Your task to perform on an android device: Go to wifi settings Image 0: 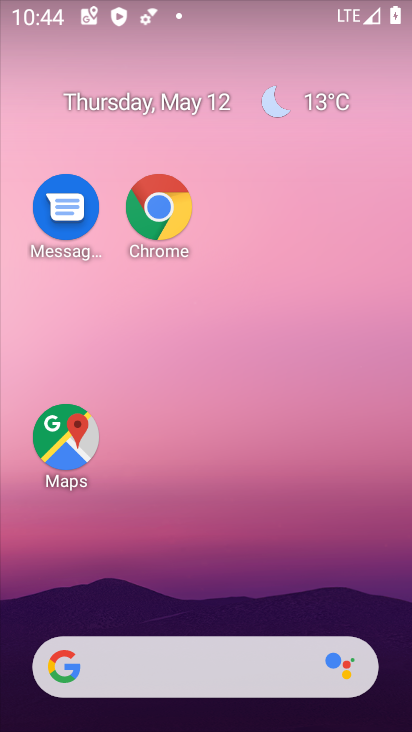
Step 0: drag from (190, 607) to (193, 13)
Your task to perform on an android device: Go to wifi settings Image 1: 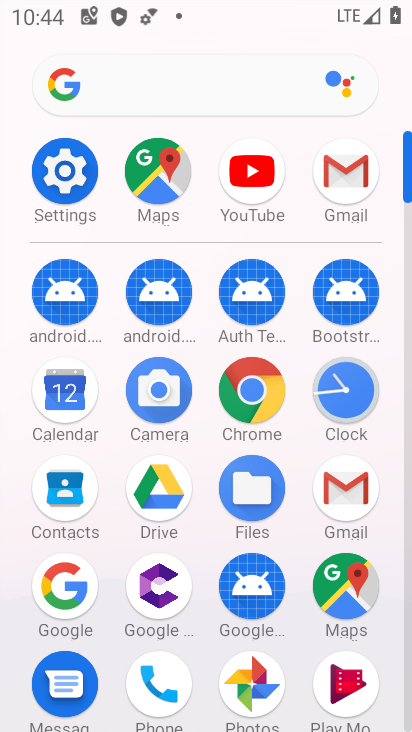
Step 1: click (74, 161)
Your task to perform on an android device: Go to wifi settings Image 2: 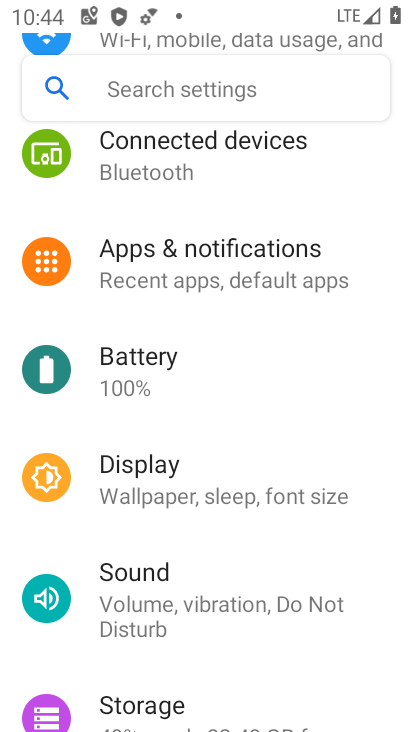
Step 2: drag from (117, 167) to (106, 580)
Your task to perform on an android device: Go to wifi settings Image 3: 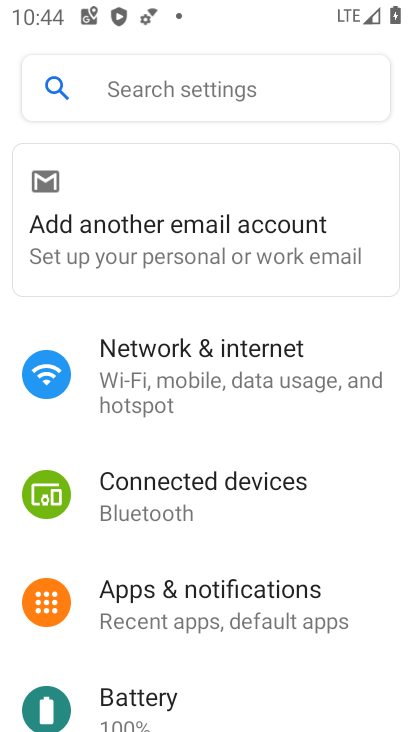
Step 3: click (149, 374)
Your task to perform on an android device: Go to wifi settings Image 4: 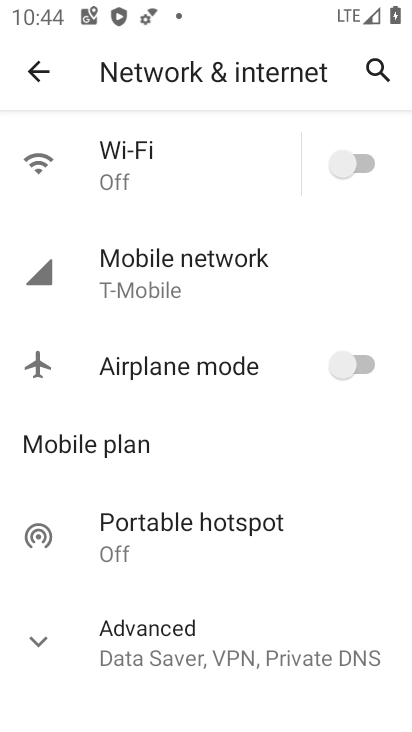
Step 4: click (156, 195)
Your task to perform on an android device: Go to wifi settings Image 5: 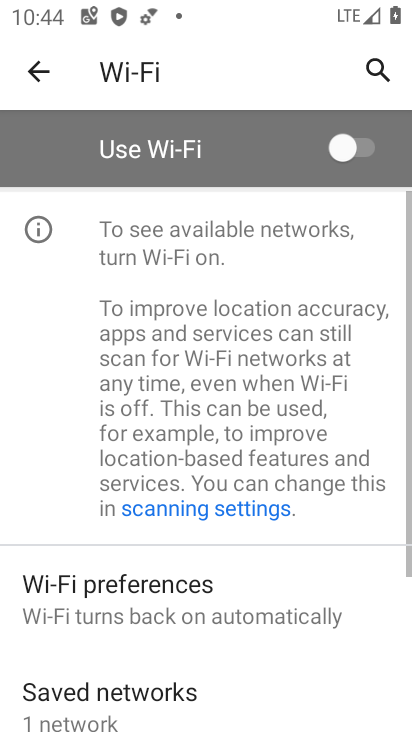
Step 5: task complete